Your task to perform on an android device: Is it going to rain tomorrow? Image 0: 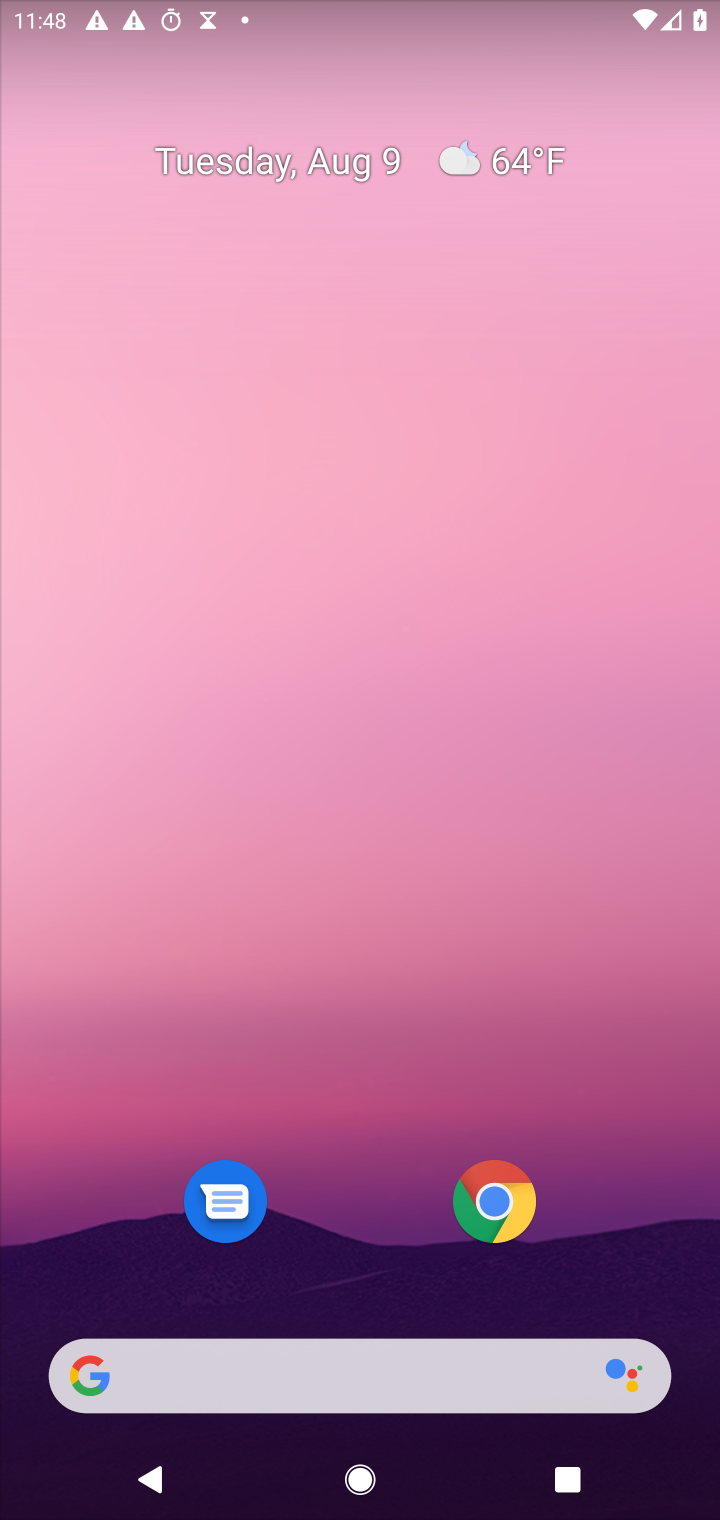
Step 0: press home button
Your task to perform on an android device: Is it going to rain tomorrow? Image 1: 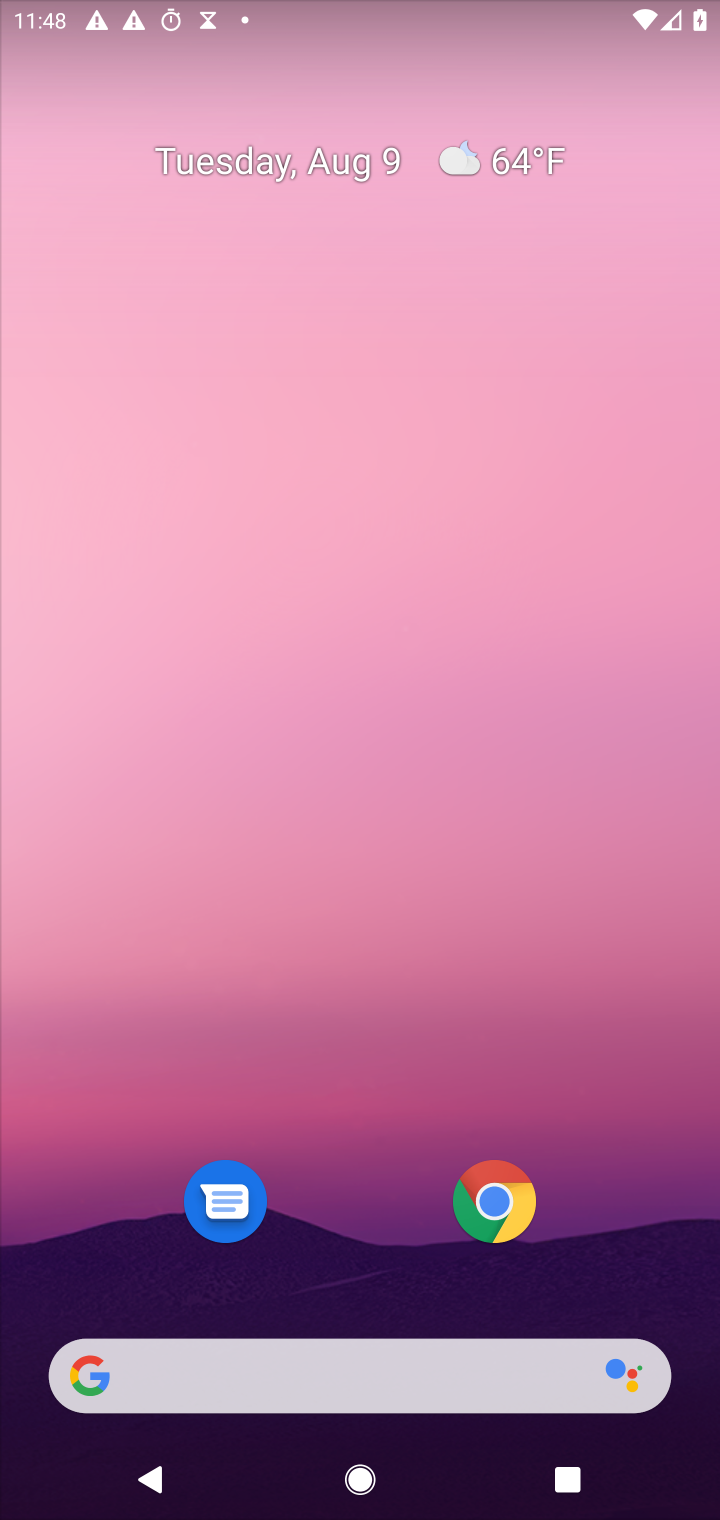
Step 1: drag from (362, 1251) to (320, 248)
Your task to perform on an android device: Is it going to rain tomorrow? Image 2: 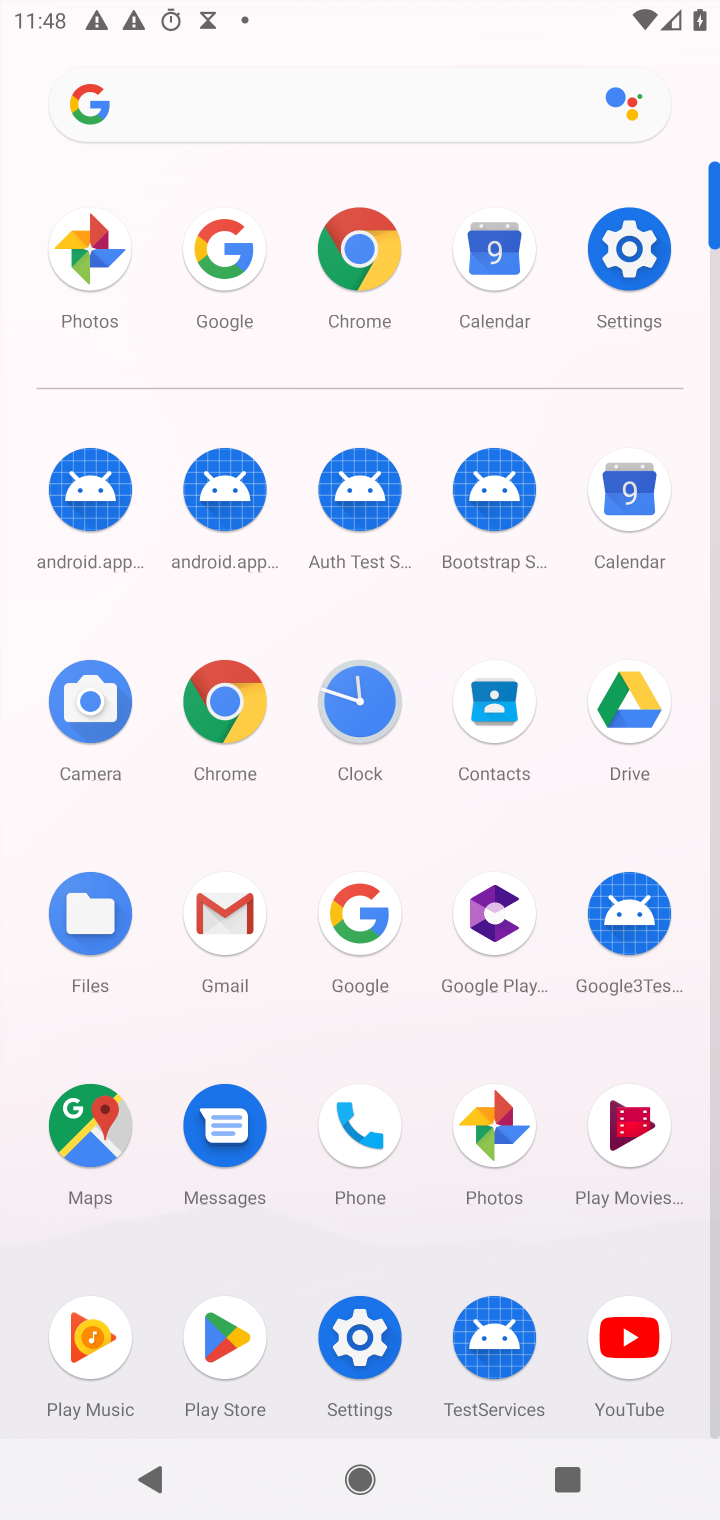
Step 2: click (374, 917)
Your task to perform on an android device: Is it going to rain tomorrow? Image 3: 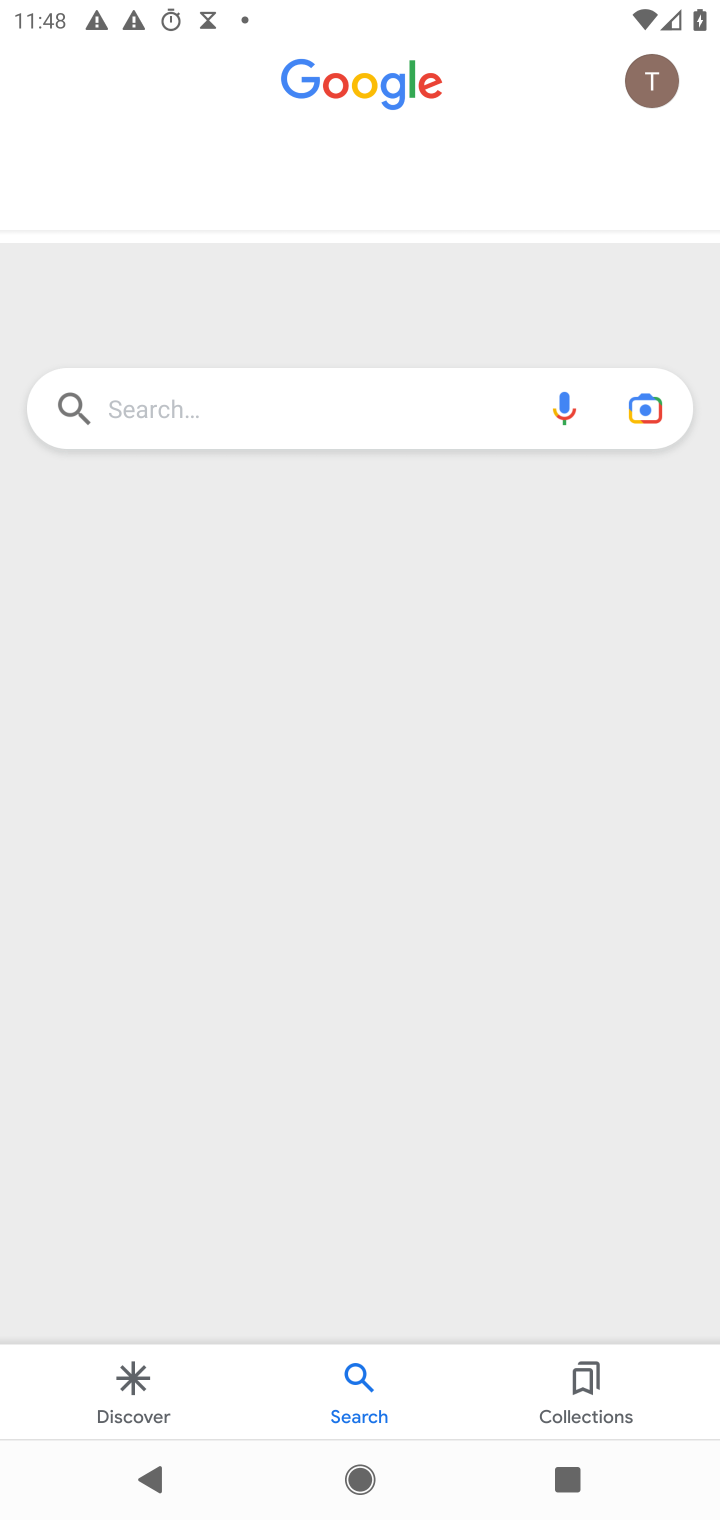
Step 3: click (279, 392)
Your task to perform on an android device: Is it going to rain tomorrow? Image 4: 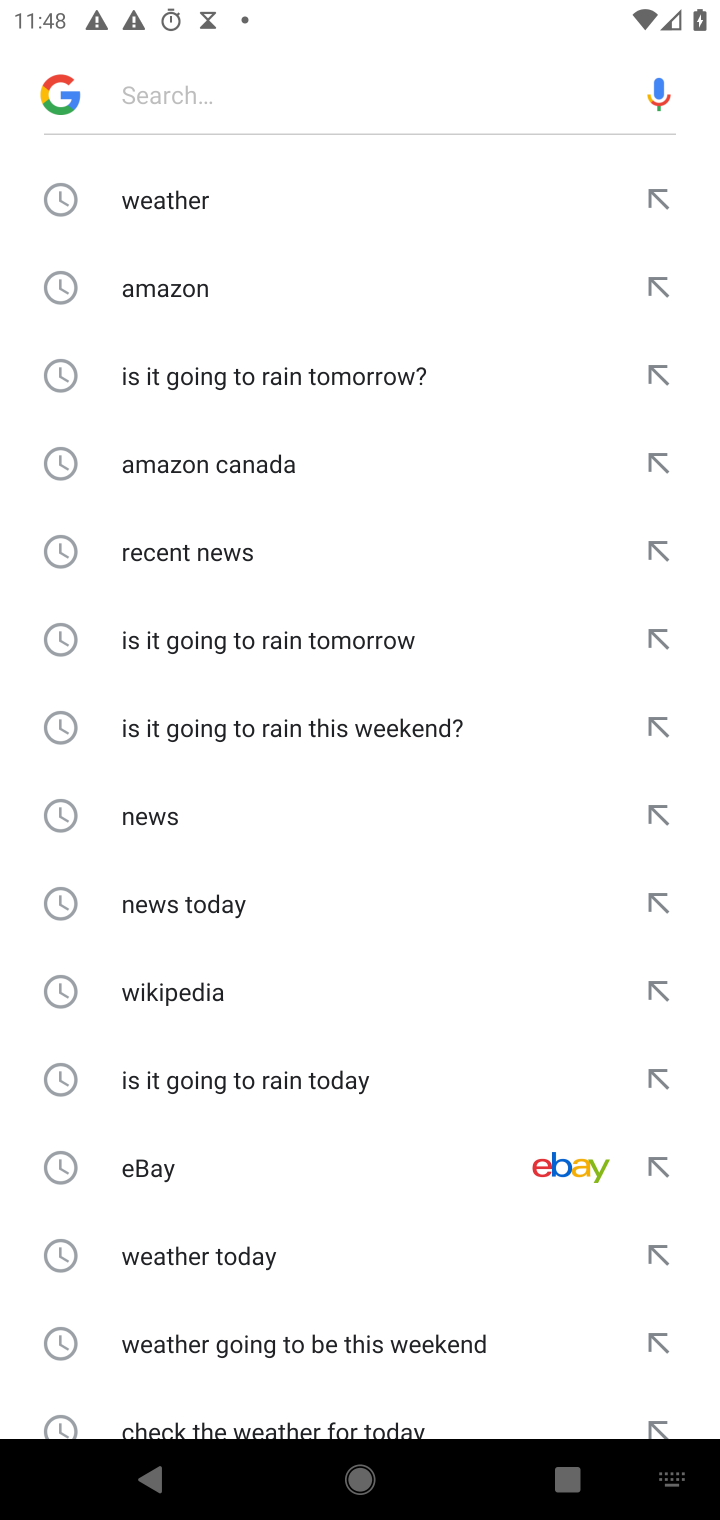
Step 4: type "Is it going to rain tomorrow?"
Your task to perform on an android device: Is it going to rain tomorrow? Image 5: 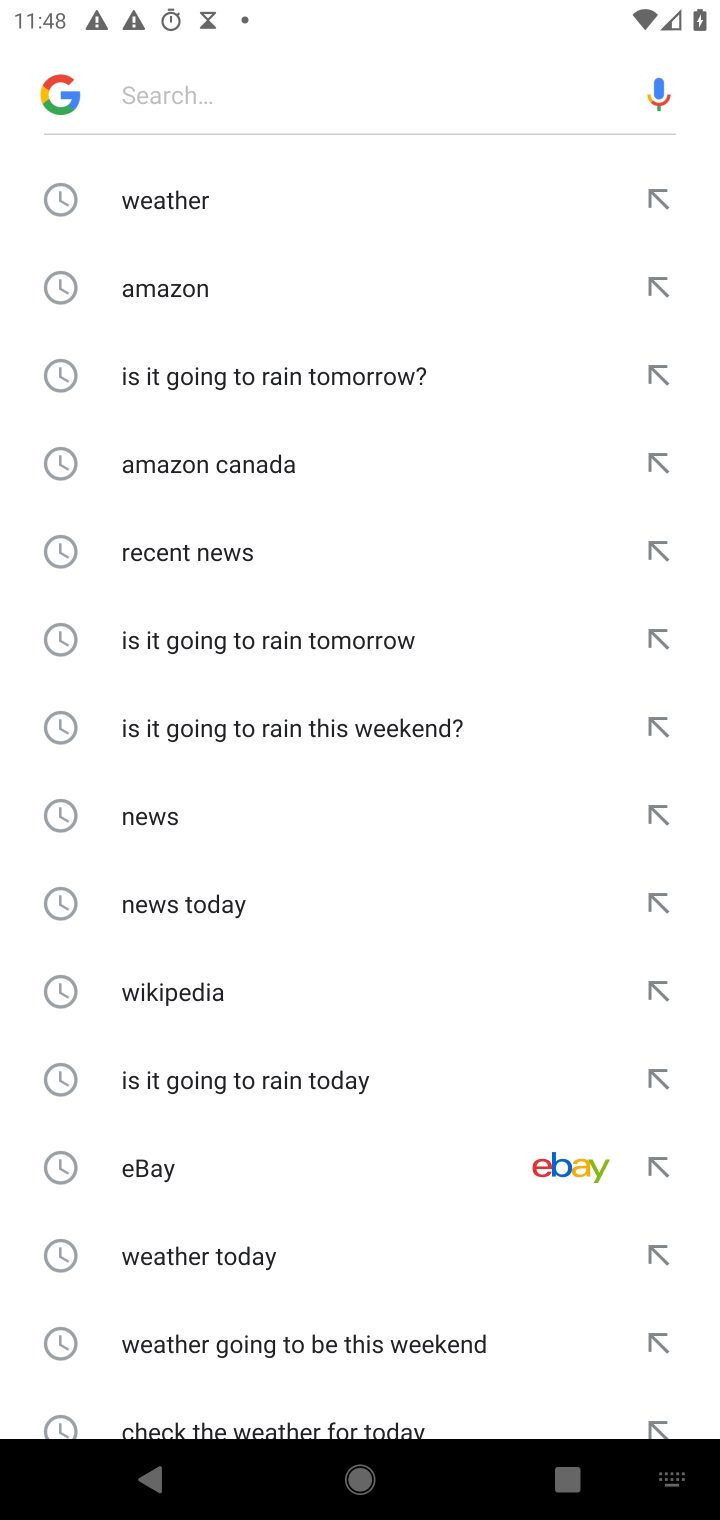
Step 5: click (227, 80)
Your task to perform on an android device: Is it going to rain tomorrow? Image 6: 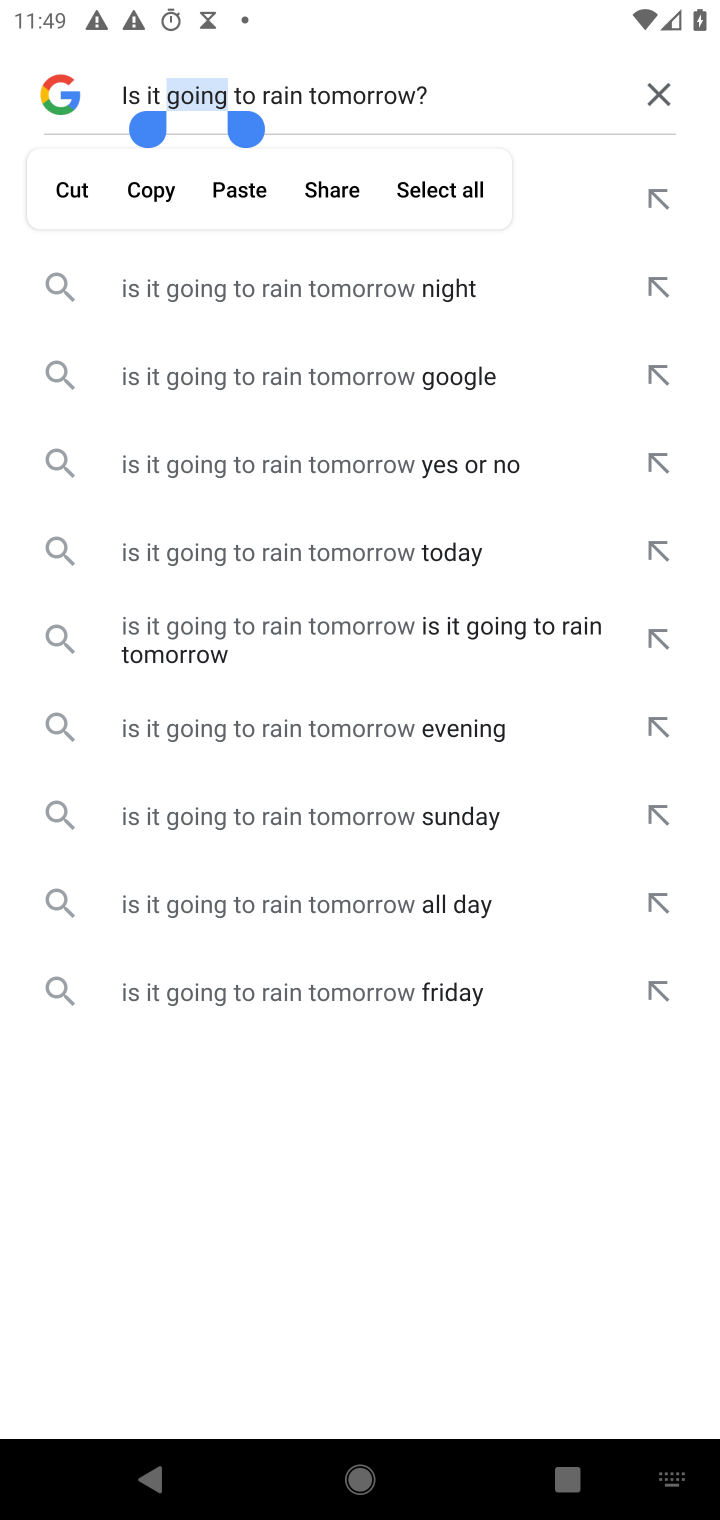
Step 6: press enter
Your task to perform on an android device: Is it going to rain tomorrow? Image 7: 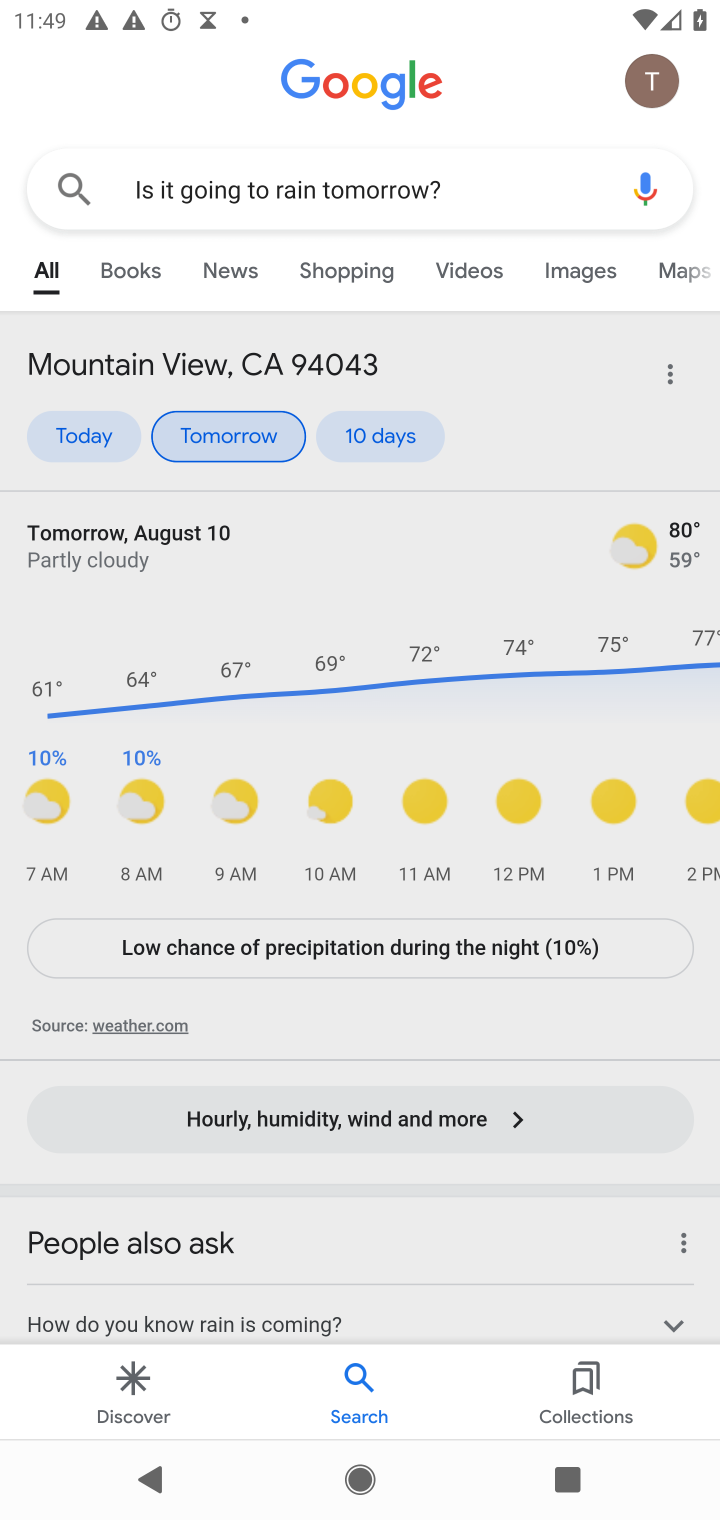
Step 7: task complete